Your task to perform on an android device: Go to CNN.com Image 0: 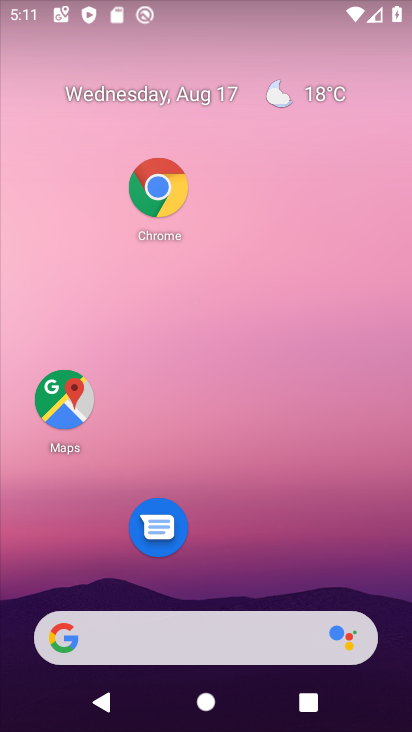
Step 0: click (163, 648)
Your task to perform on an android device: Go to CNN.com Image 1: 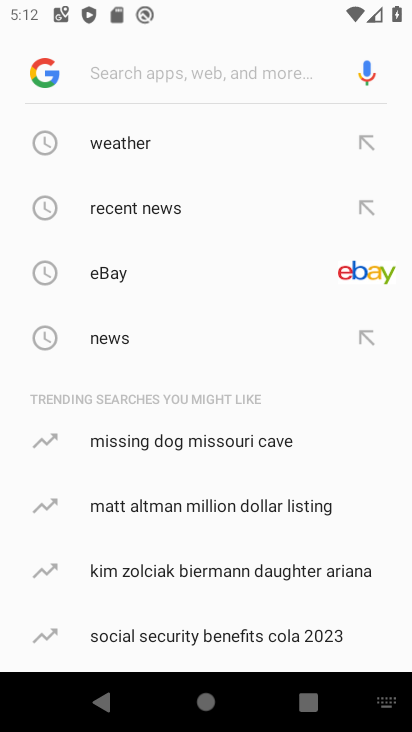
Step 1: type "cnn"
Your task to perform on an android device: Go to CNN.com Image 2: 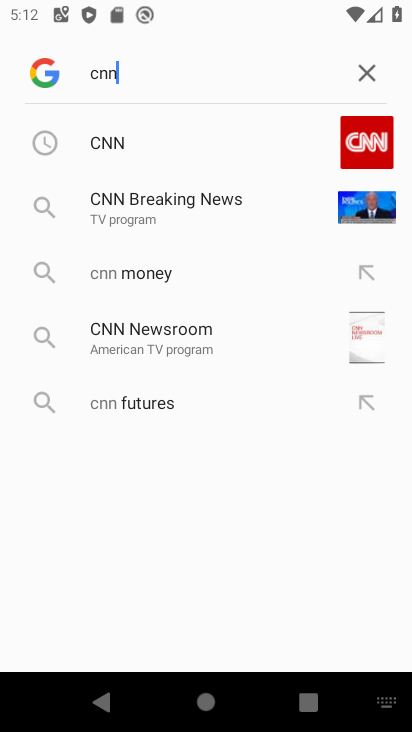
Step 2: click (349, 135)
Your task to perform on an android device: Go to CNN.com Image 3: 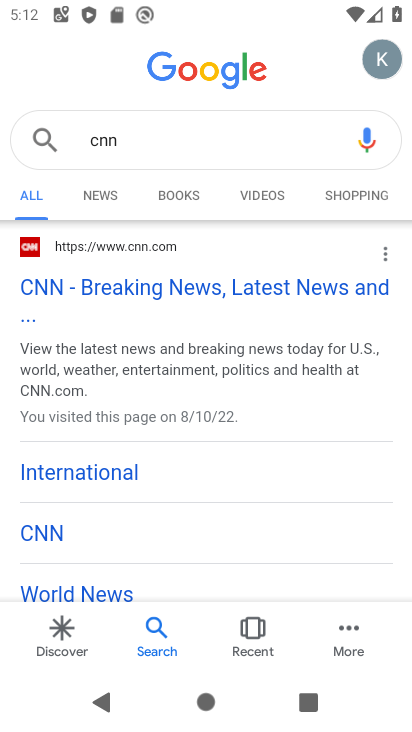
Step 3: click (182, 282)
Your task to perform on an android device: Go to CNN.com Image 4: 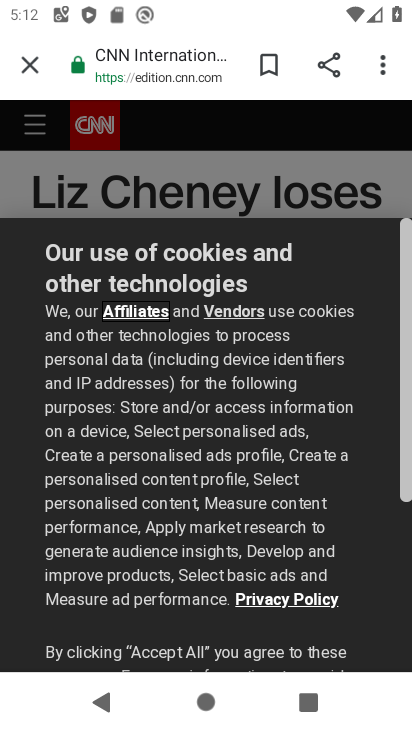
Step 4: task complete